Your task to perform on an android device: toggle airplane mode Image 0: 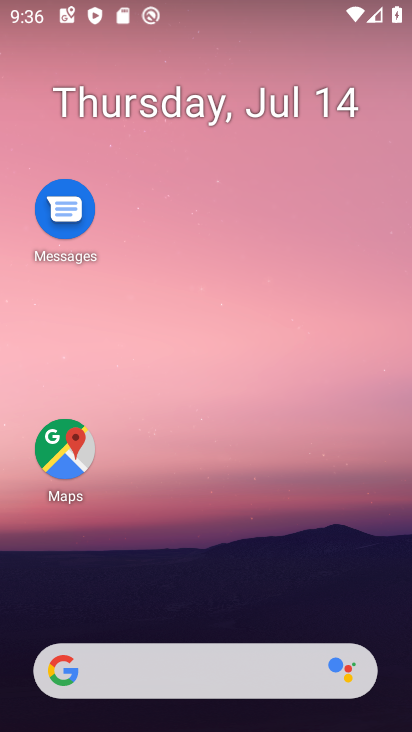
Step 0: drag from (226, 624) to (183, 0)
Your task to perform on an android device: toggle airplane mode Image 1: 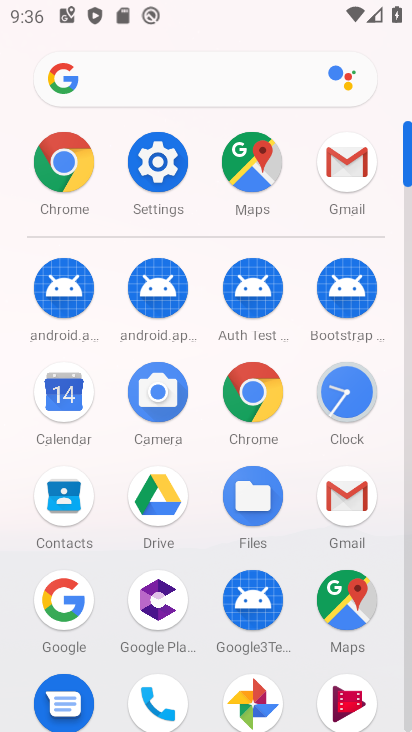
Step 1: click (142, 170)
Your task to perform on an android device: toggle airplane mode Image 2: 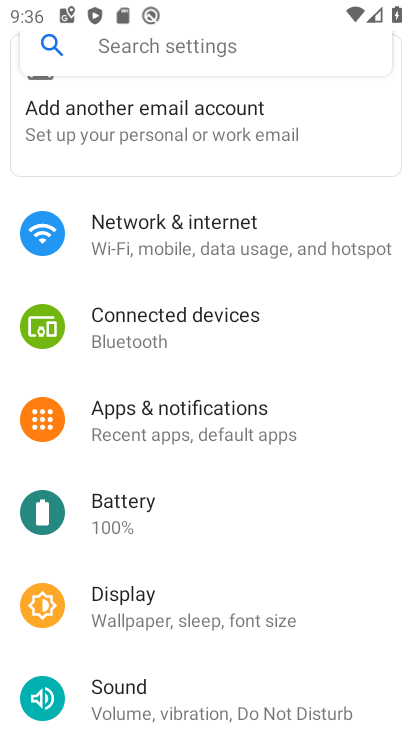
Step 2: drag from (142, 170) to (156, 358)
Your task to perform on an android device: toggle airplane mode Image 3: 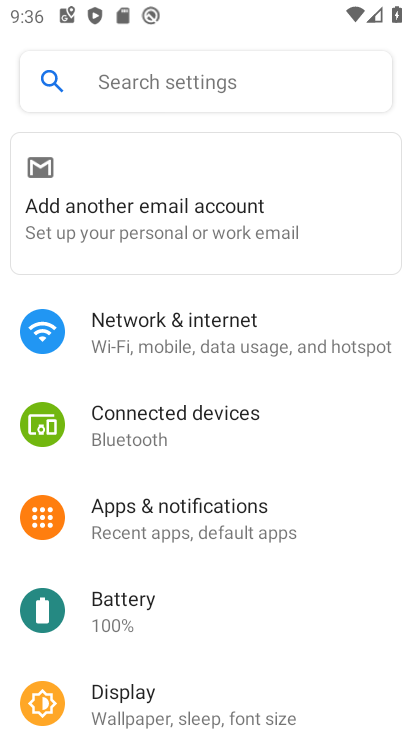
Step 3: click (152, 339)
Your task to perform on an android device: toggle airplane mode Image 4: 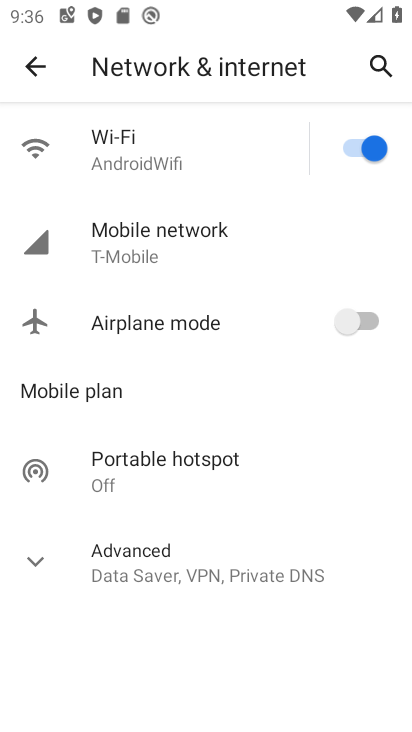
Step 4: click (151, 332)
Your task to perform on an android device: toggle airplane mode Image 5: 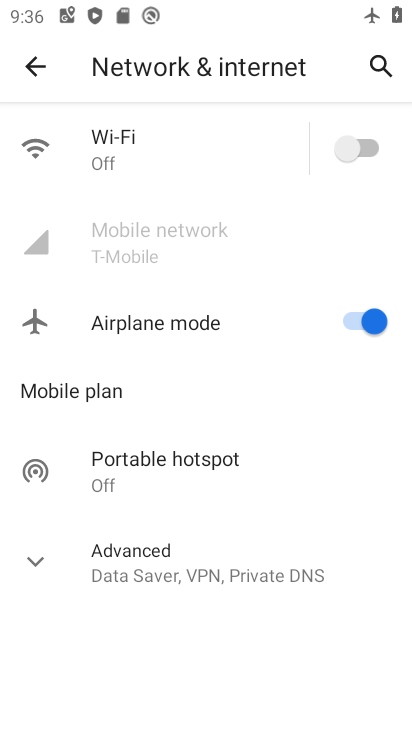
Step 5: task complete